Your task to perform on an android device: What is the recent news? Image 0: 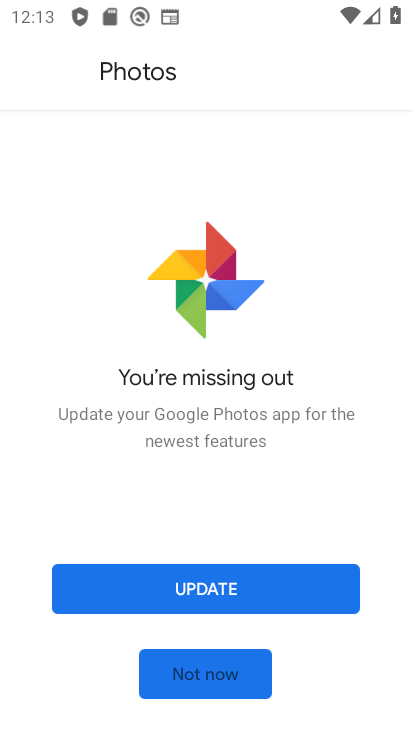
Step 0: press home button
Your task to perform on an android device: What is the recent news? Image 1: 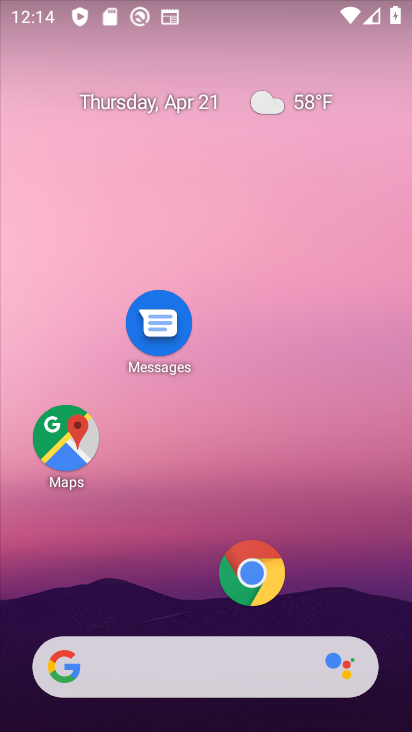
Step 1: drag from (157, 482) to (126, 96)
Your task to perform on an android device: What is the recent news? Image 2: 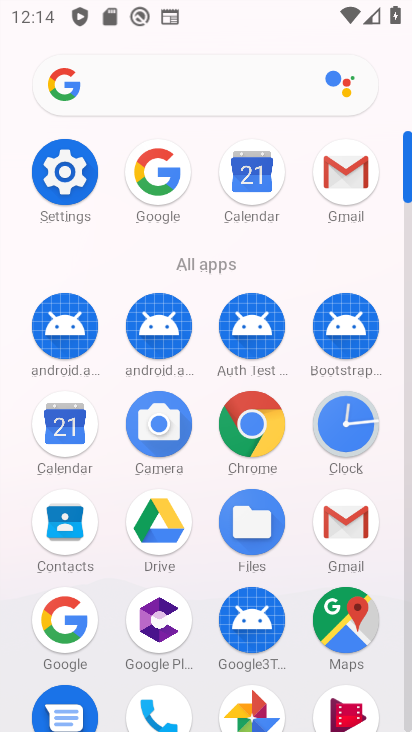
Step 2: click (156, 172)
Your task to perform on an android device: What is the recent news? Image 3: 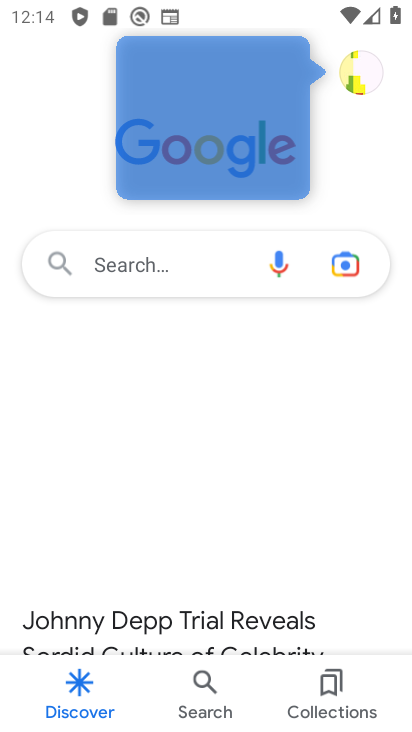
Step 3: click (174, 270)
Your task to perform on an android device: What is the recent news? Image 4: 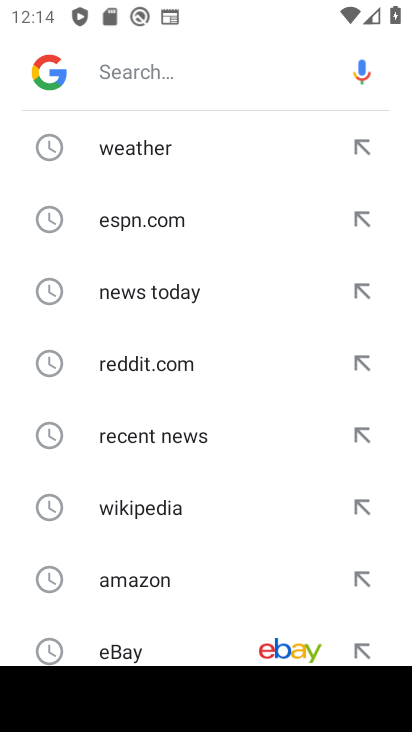
Step 4: click (150, 433)
Your task to perform on an android device: What is the recent news? Image 5: 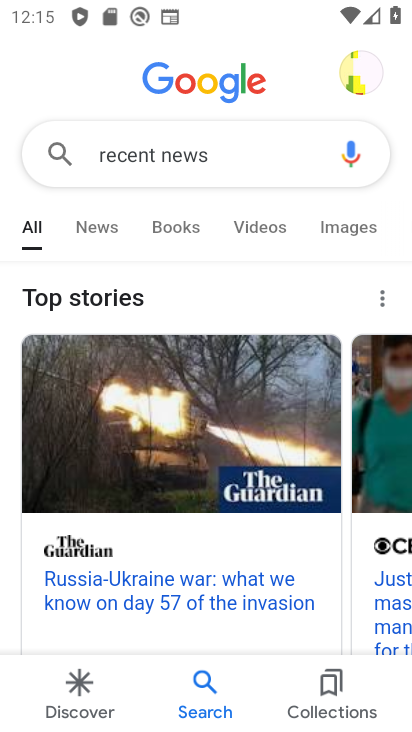
Step 5: task complete